Your task to perform on an android device: set an alarm Image 0: 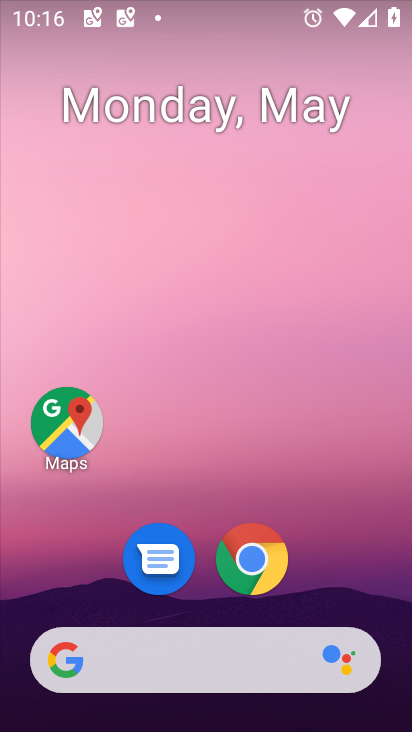
Step 0: drag from (384, 633) to (277, 53)
Your task to perform on an android device: set an alarm Image 1: 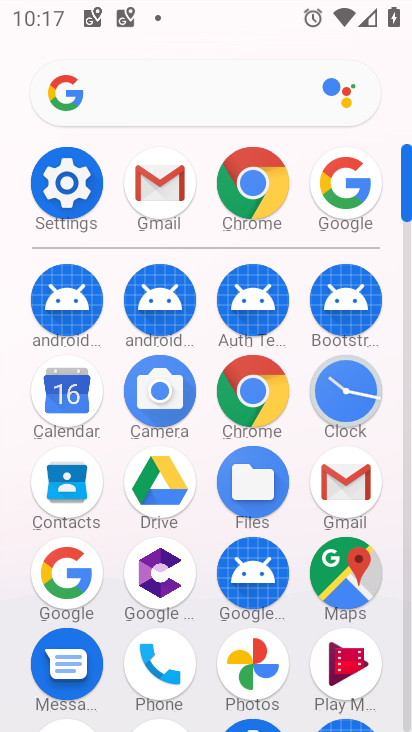
Step 1: click (358, 399)
Your task to perform on an android device: set an alarm Image 2: 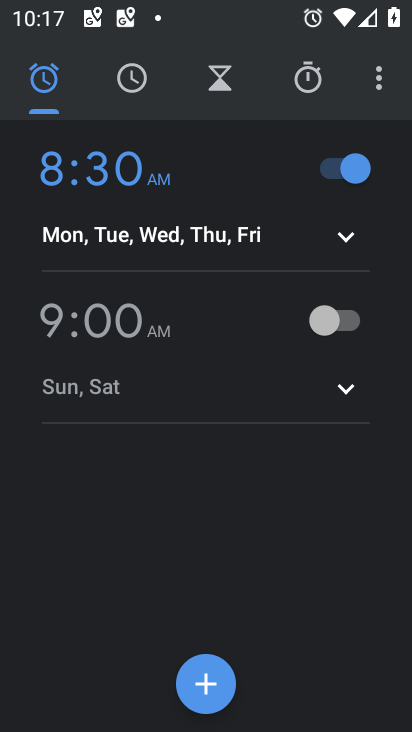
Step 2: click (311, 313)
Your task to perform on an android device: set an alarm Image 3: 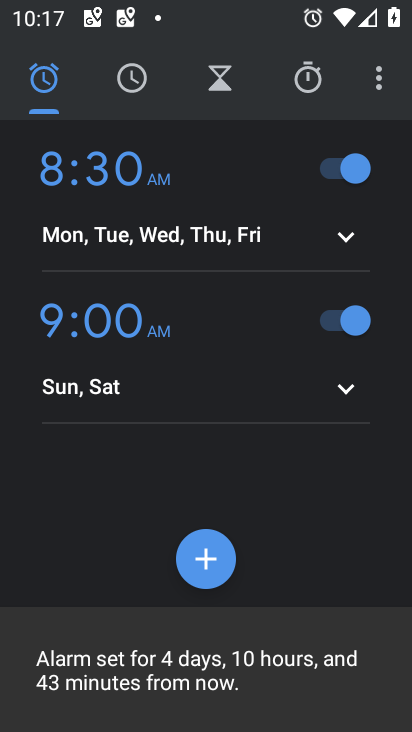
Step 3: task complete